Your task to perform on an android device: Toggle the flashlight Image 0: 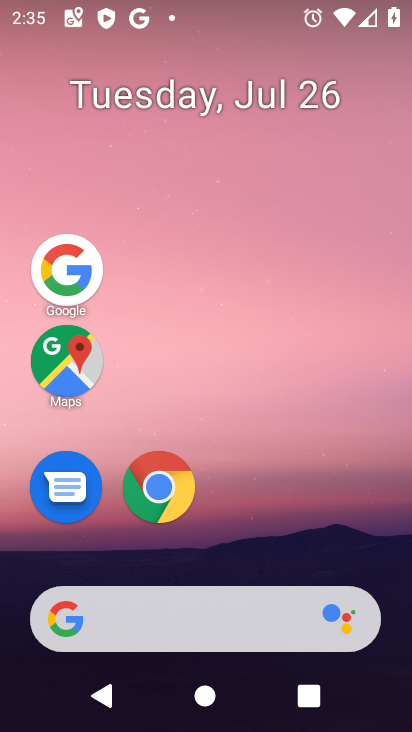
Step 0: drag from (234, 540) to (242, 164)
Your task to perform on an android device: Toggle the flashlight Image 1: 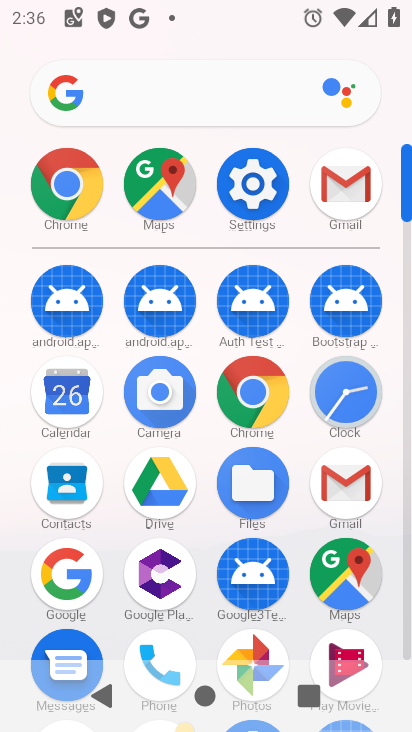
Step 1: task complete